Your task to perform on an android device: Search for pizza restaurants on Maps Image 0: 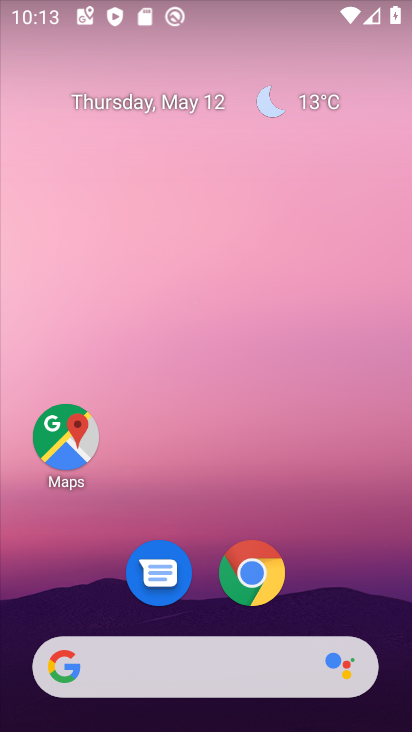
Step 0: drag from (219, 621) to (257, 15)
Your task to perform on an android device: Search for pizza restaurants on Maps Image 1: 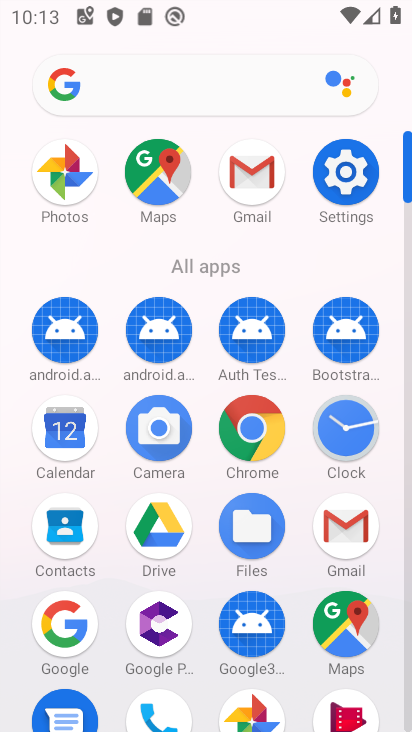
Step 1: click (339, 611)
Your task to perform on an android device: Search for pizza restaurants on Maps Image 2: 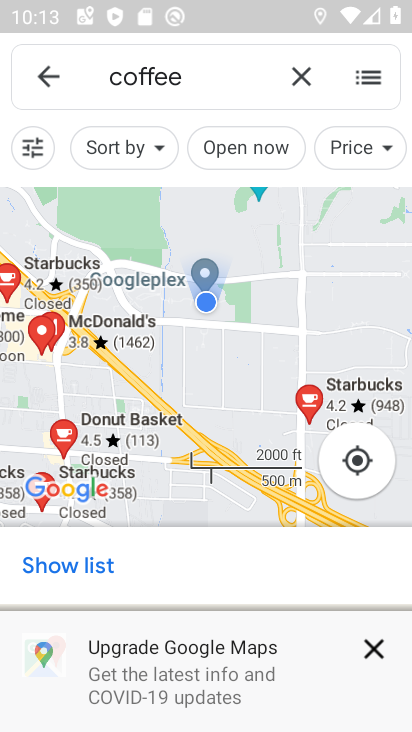
Step 2: click (293, 76)
Your task to perform on an android device: Search for pizza restaurants on Maps Image 3: 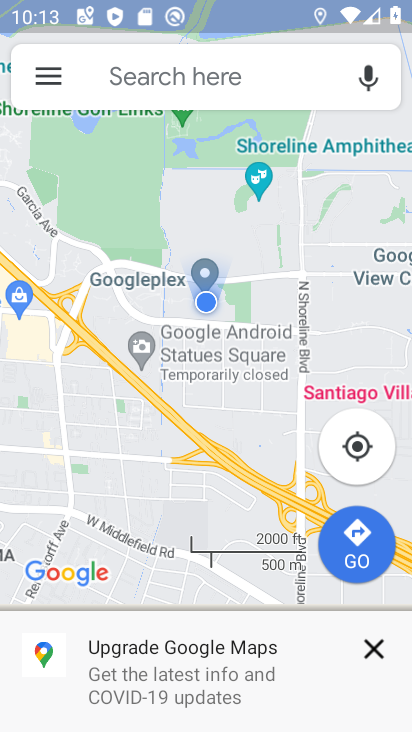
Step 3: click (244, 86)
Your task to perform on an android device: Search for pizza restaurants on Maps Image 4: 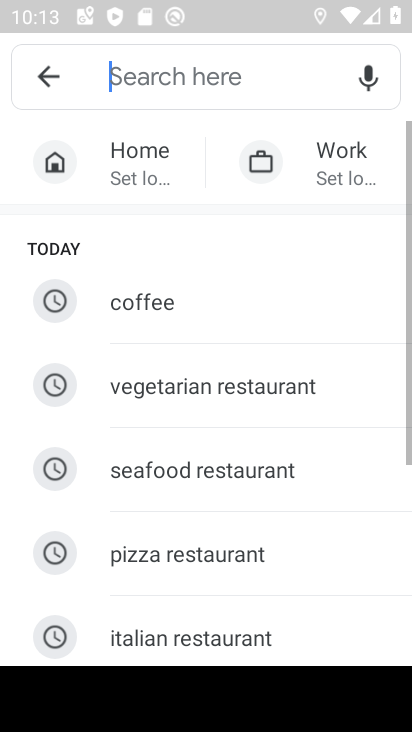
Step 4: click (195, 549)
Your task to perform on an android device: Search for pizza restaurants on Maps Image 5: 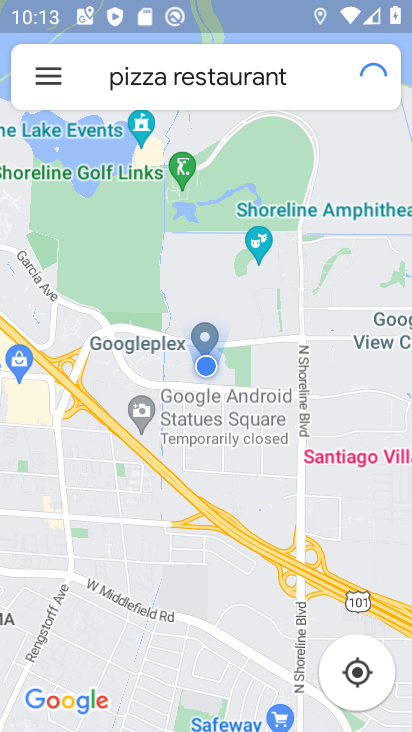
Step 5: task complete